Your task to perform on an android device: allow notifications from all sites in the chrome app Image 0: 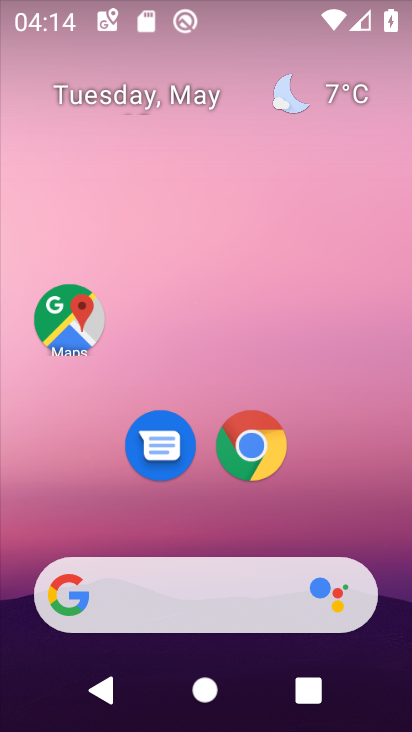
Step 0: drag from (228, 525) to (255, 4)
Your task to perform on an android device: allow notifications from all sites in the chrome app Image 1: 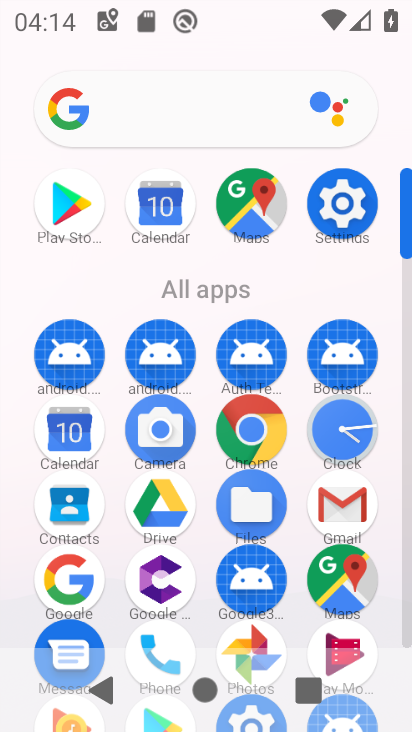
Step 1: click (253, 436)
Your task to perform on an android device: allow notifications from all sites in the chrome app Image 2: 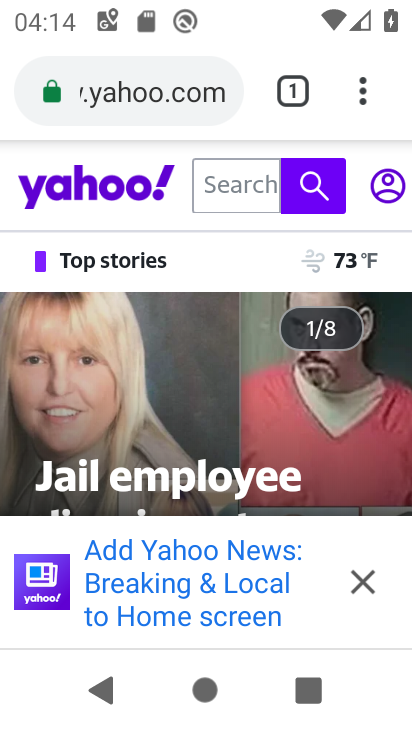
Step 2: click (357, 108)
Your task to perform on an android device: allow notifications from all sites in the chrome app Image 3: 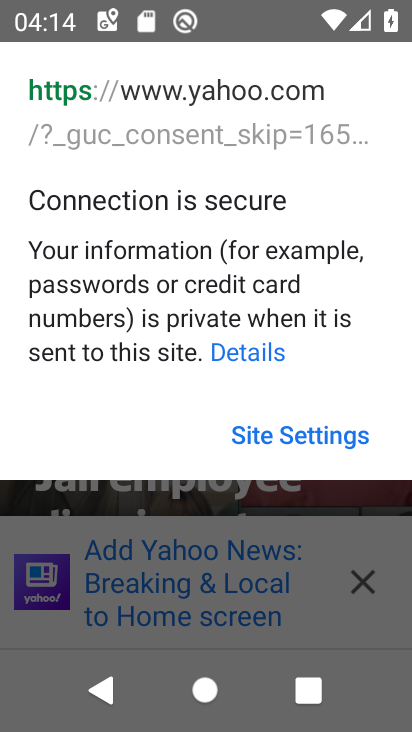
Step 3: click (225, 515)
Your task to perform on an android device: allow notifications from all sites in the chrome app Image 4: 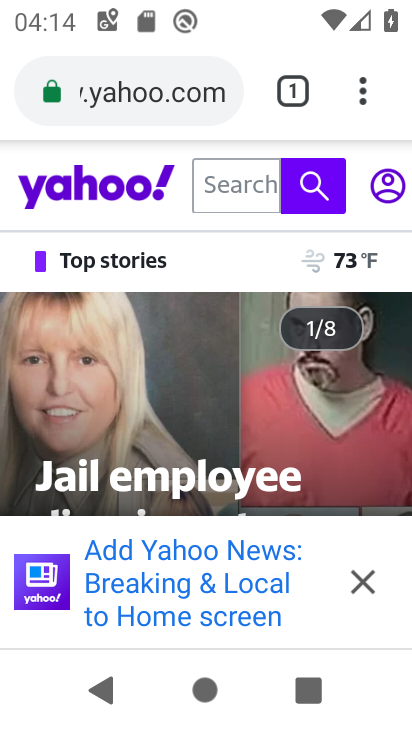
Step 4: click (358, 581)
Your task to perform on an android device: allow notifications from all sites in the chrome app Image 5: 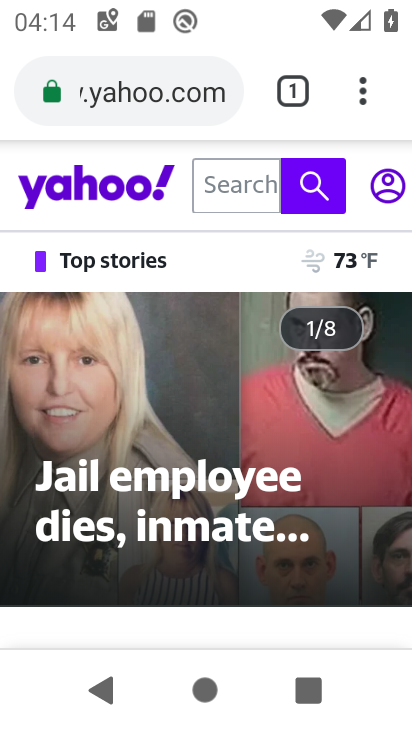
Step 5: click (353, 96)
Your task to perform on an android device: allow notifications from all sites in the chrome app Image 6: 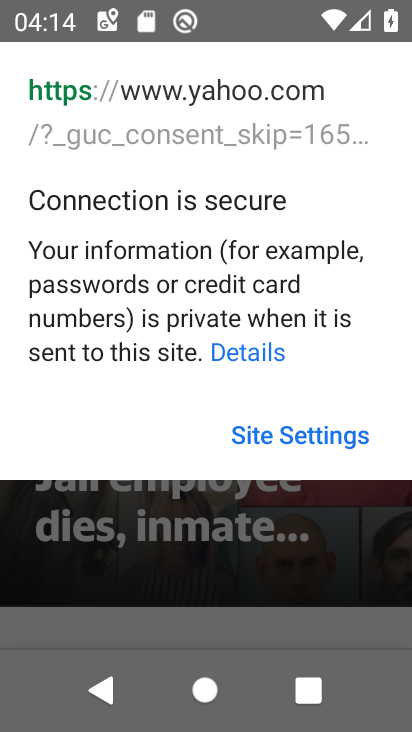
Step 6: click (287, 435)
Your task to perform on an android device: allow notifications from all sites in the chrome app Image 7: 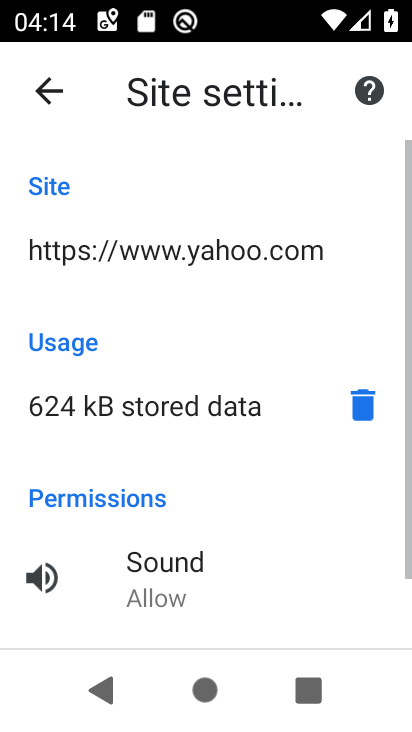
Step 7: drag from (220, 539) to (245, 81)
Your task to perform on an android device: allow notifications from all sites in the chrome app Image 8: 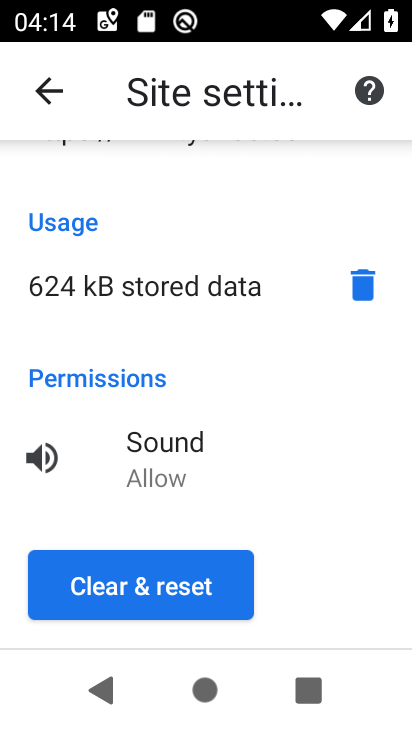
Step 8: click (194, 587)
Your task to perform on an android device: allow notifications from all sites in the chrome app Image 9: 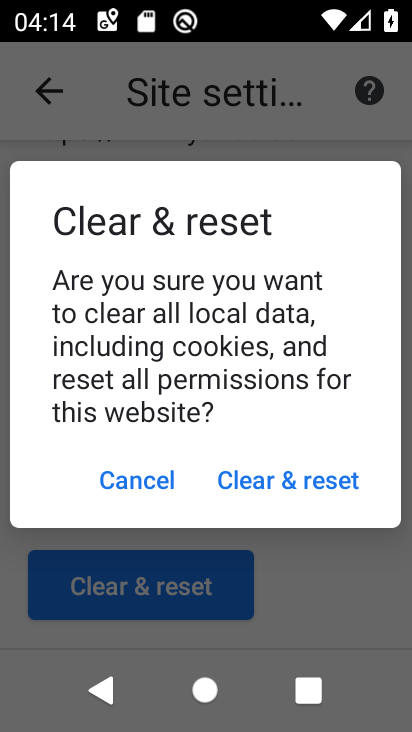
Step 9: click (259, 475)
Your task to perform on an android device: allow notifications from all sites in the chrome app Image 10: 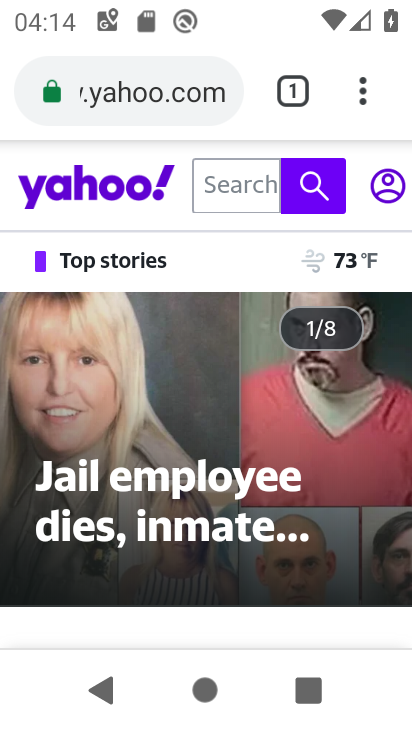
Step 10: click (356, 87)
Your task to perform on an android device: allow notifications from all sites in the chrome app Image 11: 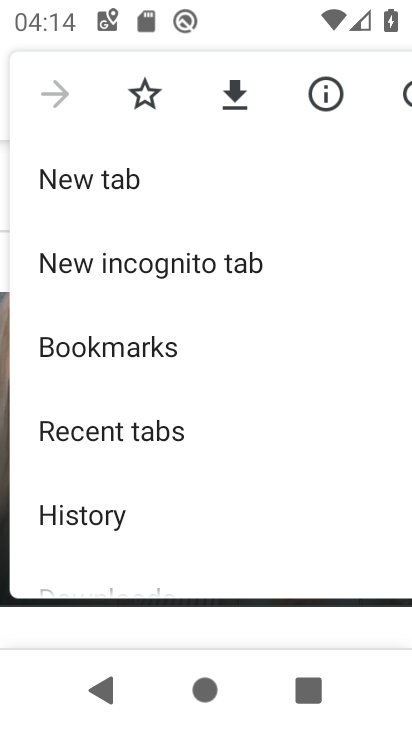
Step 11: drag from (164, 527) to (193, 147)
Your task to perform on an android device: allow notifications from all sites in the chrome app Image 12: 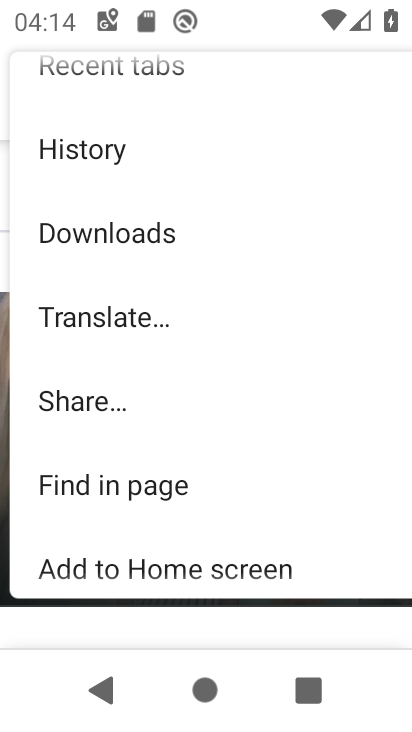
Step 12: drag from (131, 488) to (187, 98)
Your task to perform on an android device: allow notifications from all sites in the chrome app Image 13: 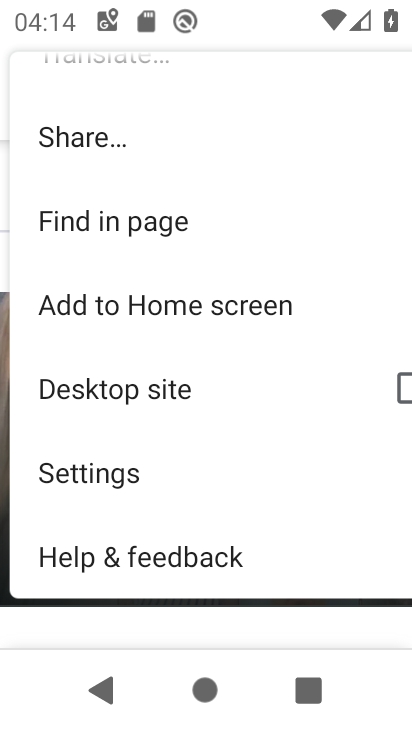
Step 13: click (100, 470)
Your task to perform on an android device: allow notifications from all sites in the chrome app Image 14: 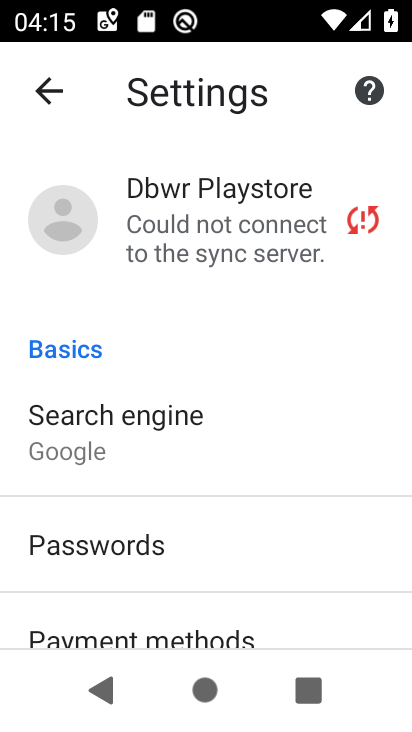
Step 14: drag from (186, 548) to (227, 256)
Your task to perform on an android device: allow notifications from all sites in the chrome app Image 15: 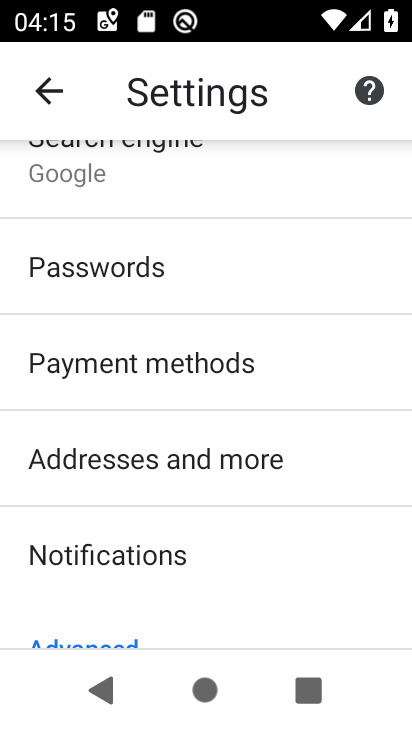
Step 15: click (183, 550)
Your task to perform on an android device: allow notifications from all sites in the chrome app Image 16: 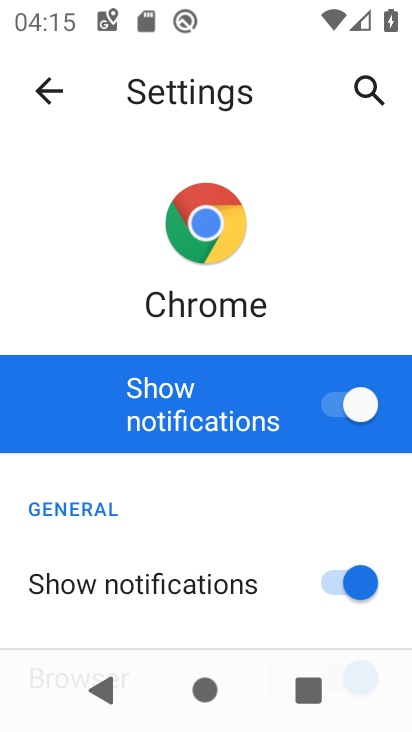
Step 16: task complete